Your task to perform on an android device: Go to eBay Image 0: 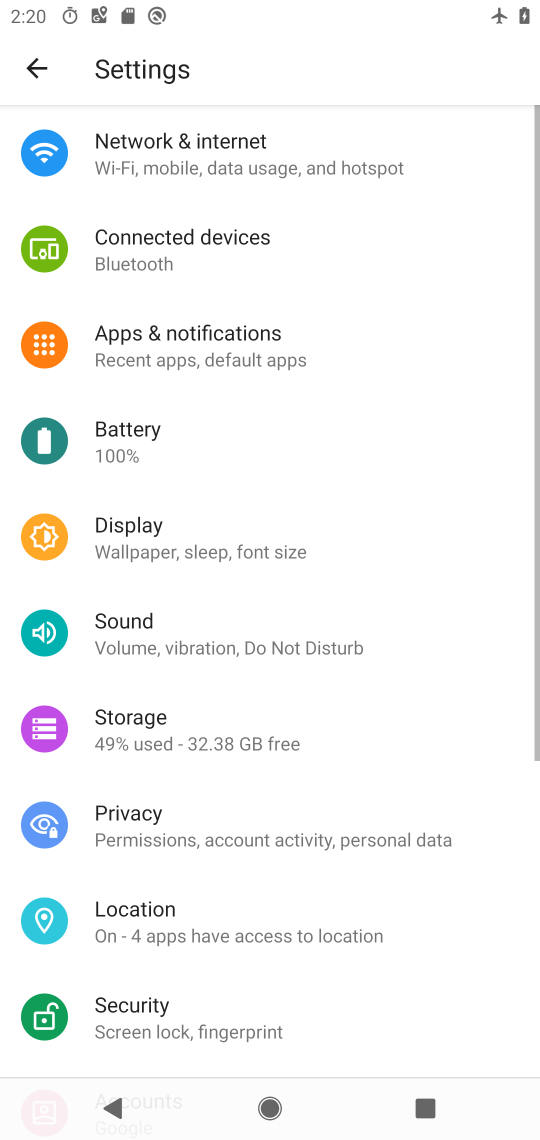
Step 0: press home button
Your task to perform on an android device: Go to eBay Image 1: 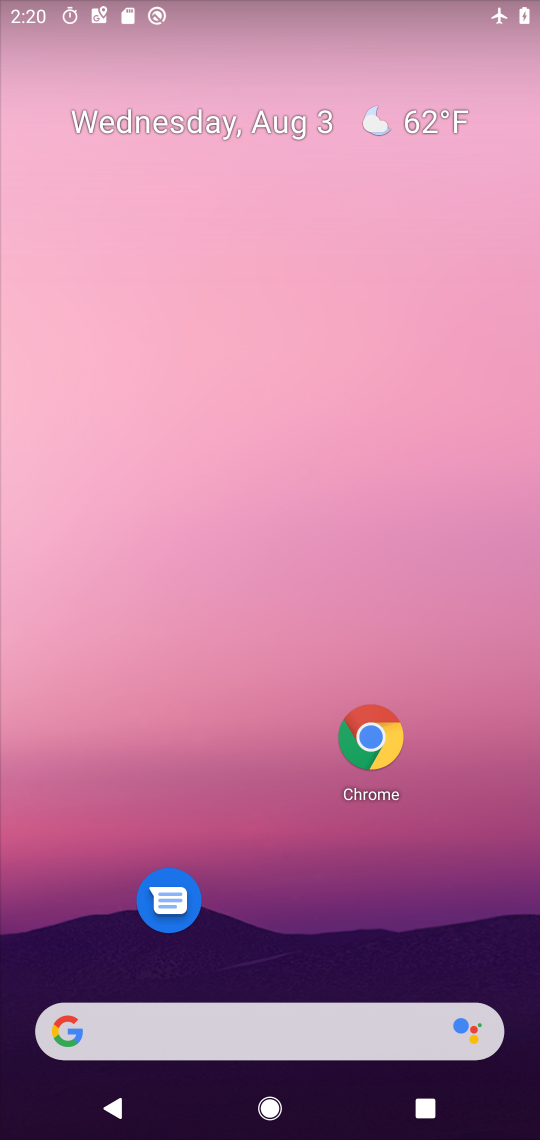
Step 1: drag from (281, 881) to (453, 49)
Your task to perform on an android device: Go to eBay Image 2: 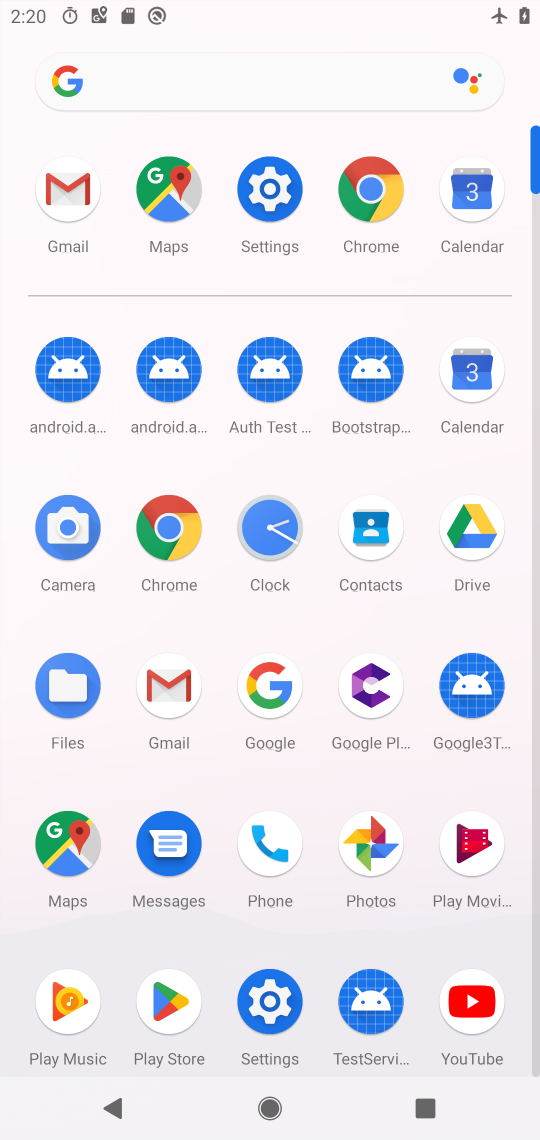
Step 2: click (164, 519)
Your task to perform on an android device: Go to eBay Image 3: 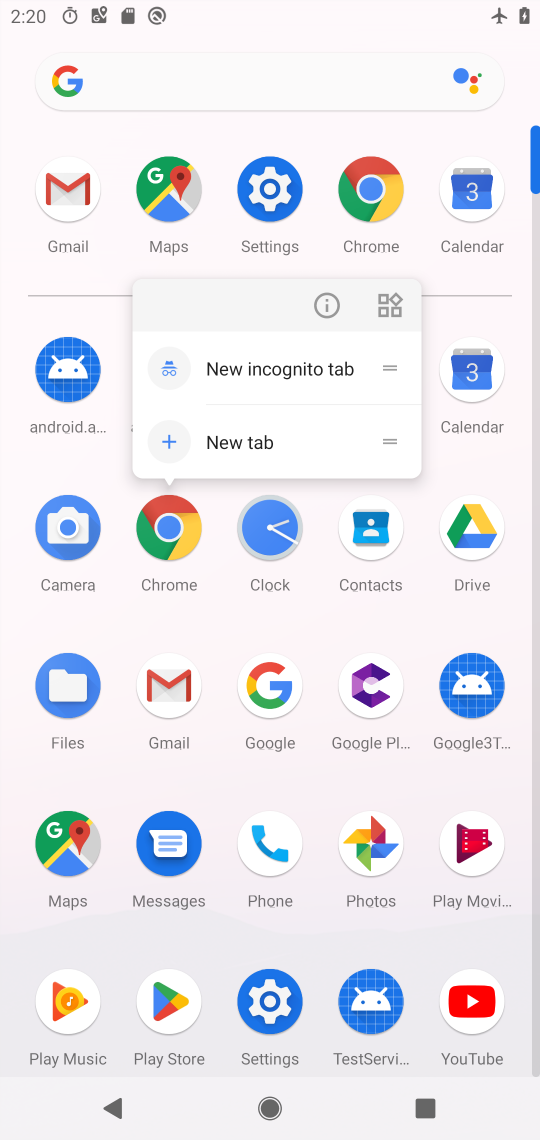
Step 3: click (167, 512)
Your task to perform on an android device: Go to eBay Image 4: 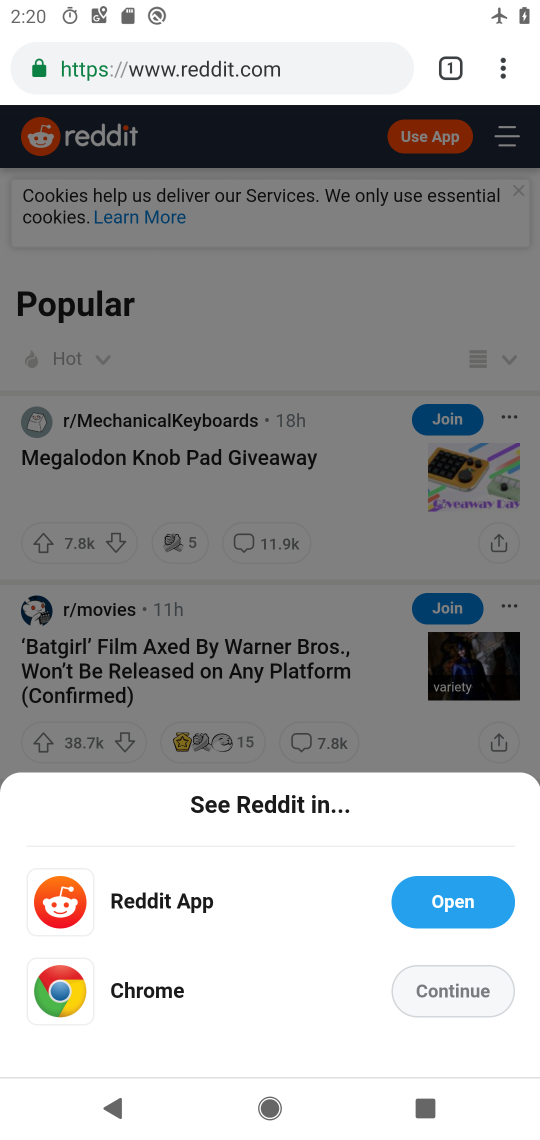
Step 4: click (254, 59)
Your task to perform on an android device: Go to eBay Image 5: 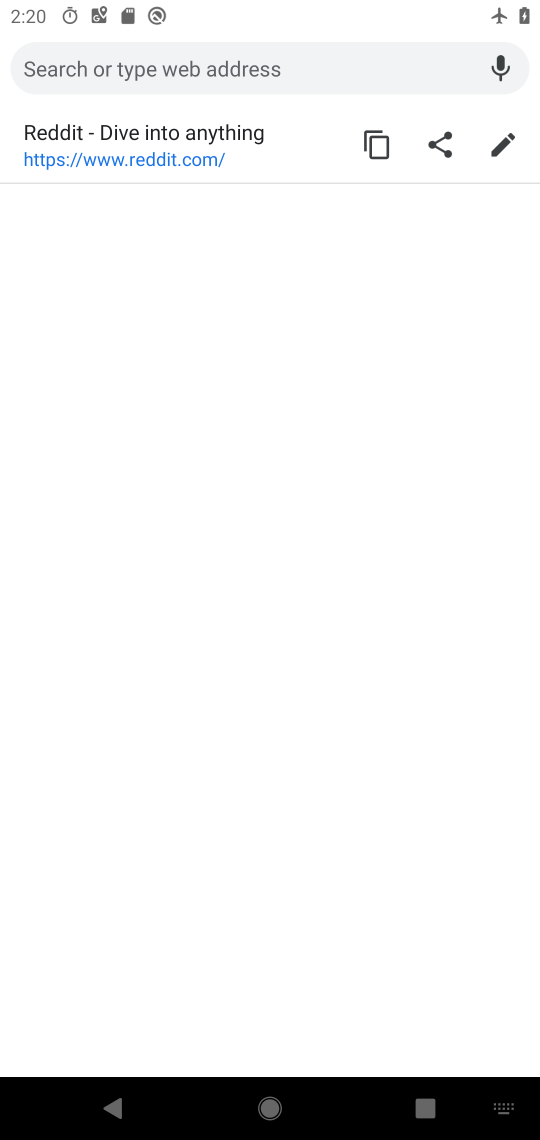
Step 5: type "ebay"
Your task to perform on an android device: Go to eBay Image 6: 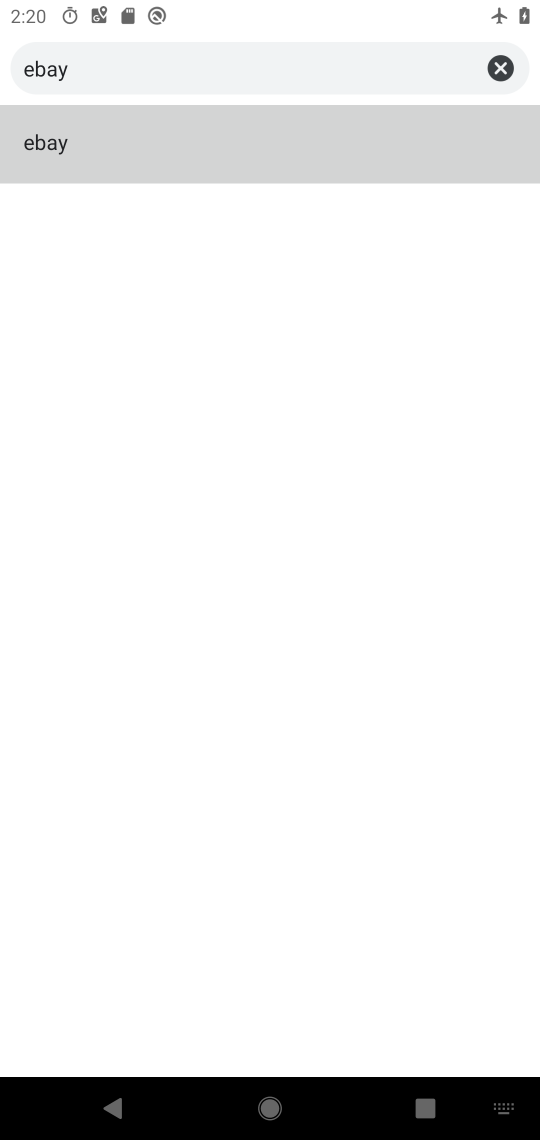
Step 6: click (66, 137)
Your task to perform on an android device: Go to eBay Image 7: 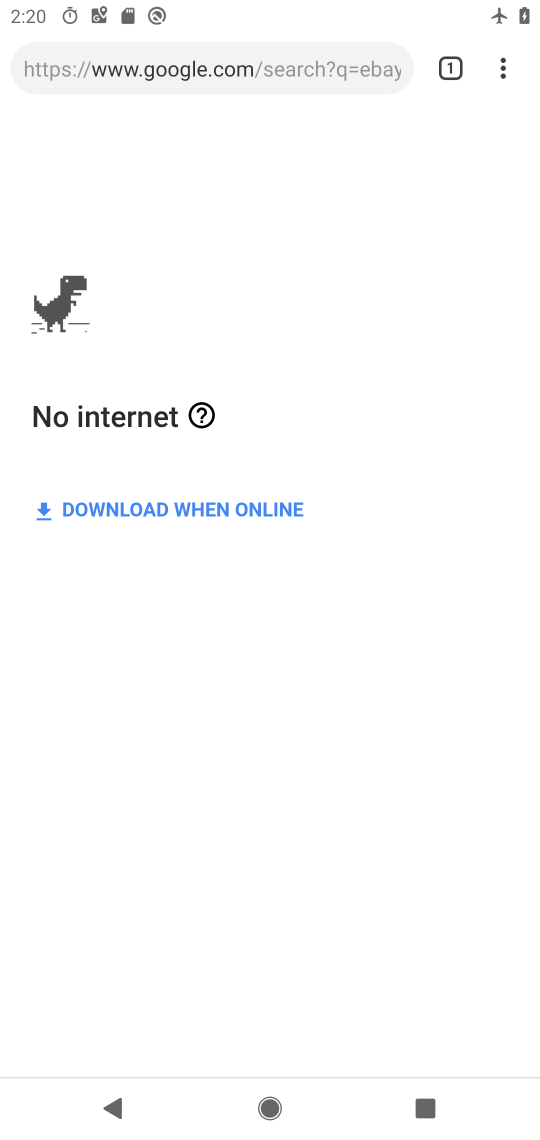
Step 7: task complete